Your task to perform on an android device: delete the emails in spam in the gmail app Image 0: 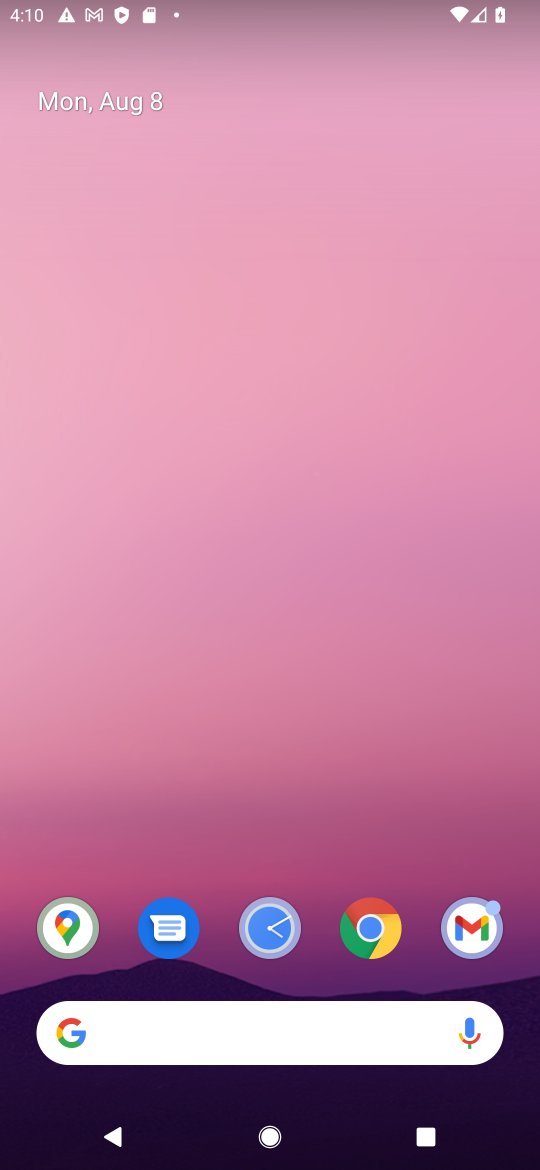
Step 0: drag from (407, 876) to (323, 130)
Your task to perform on an android device: delete the emails in spam in the gmail app Image 1: 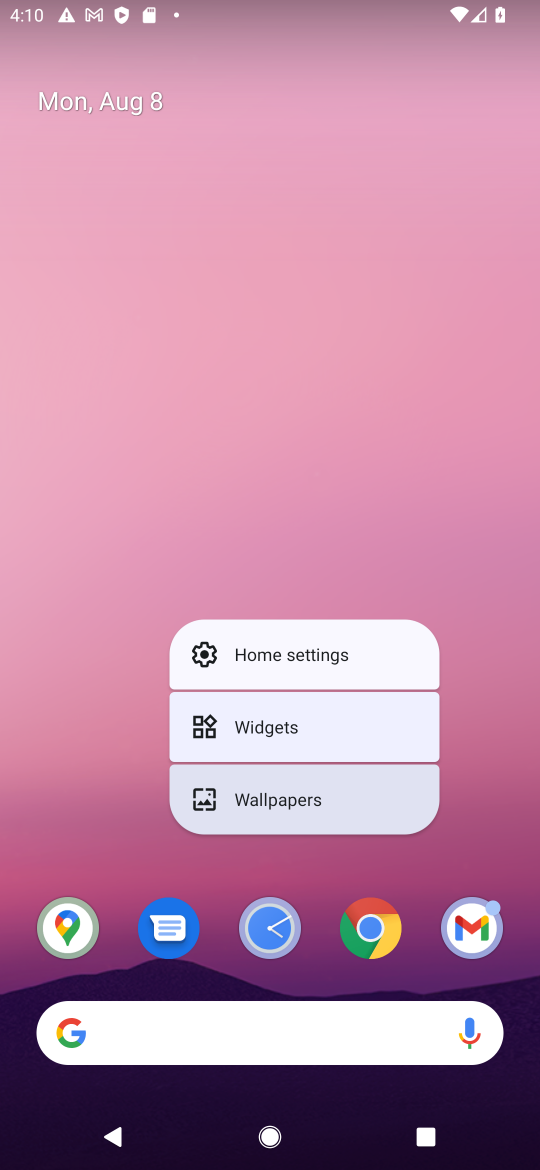
Step 1: click (468, 920)
Your task to perform on an android device: delete the emails in spam in the gmail app Image 2: 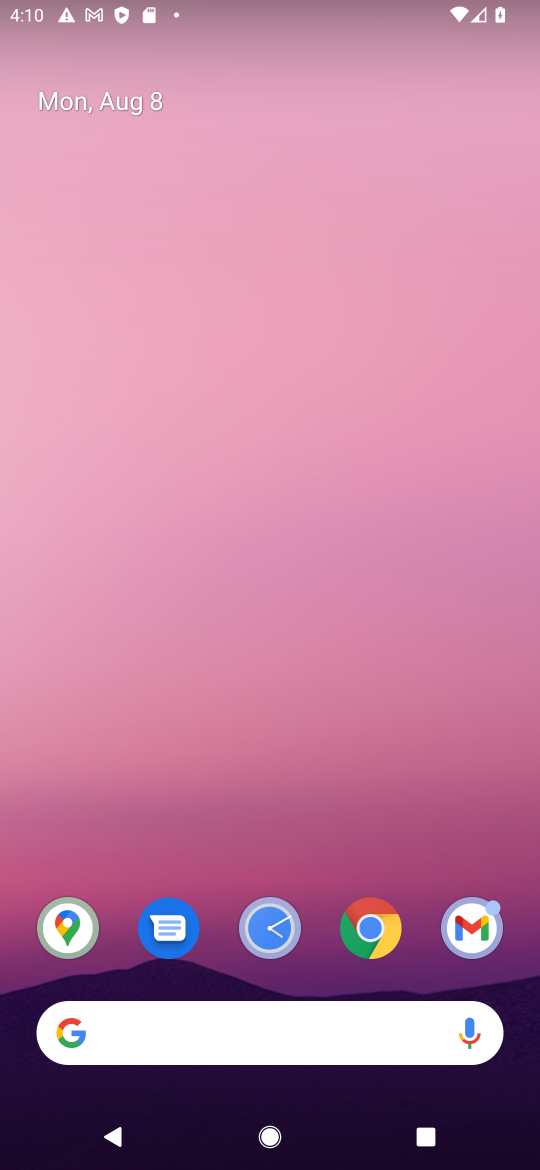
Step 2: click (479, 940)
Your task to perform on an android device: delete the emails in spam in the gmail app Image 3: 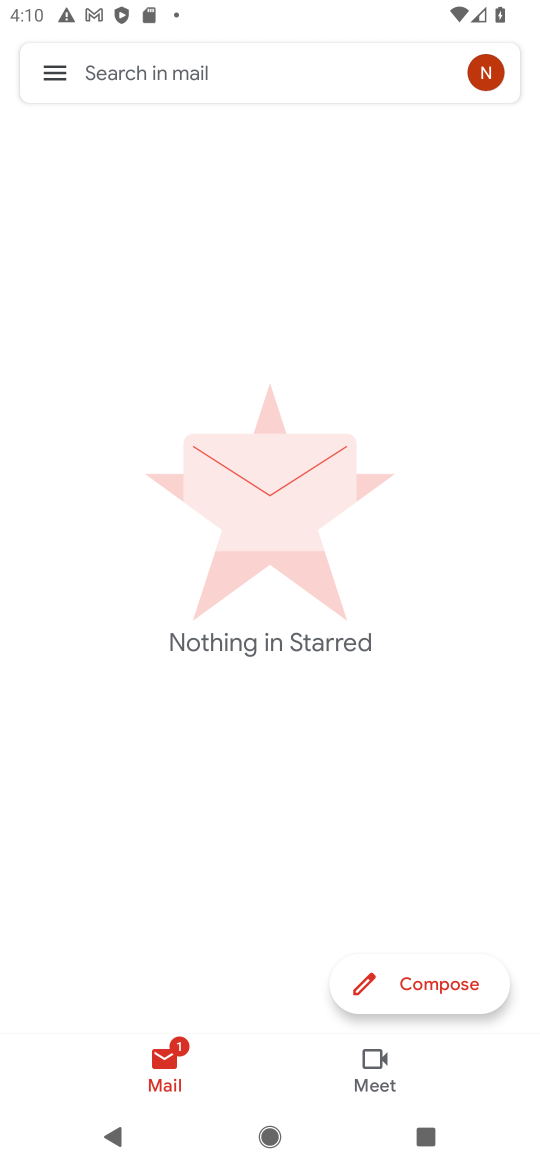
Step 3: click (62, 83)
Your task to perform on an android device: delete the emails in spam in the gmail app Image 4: 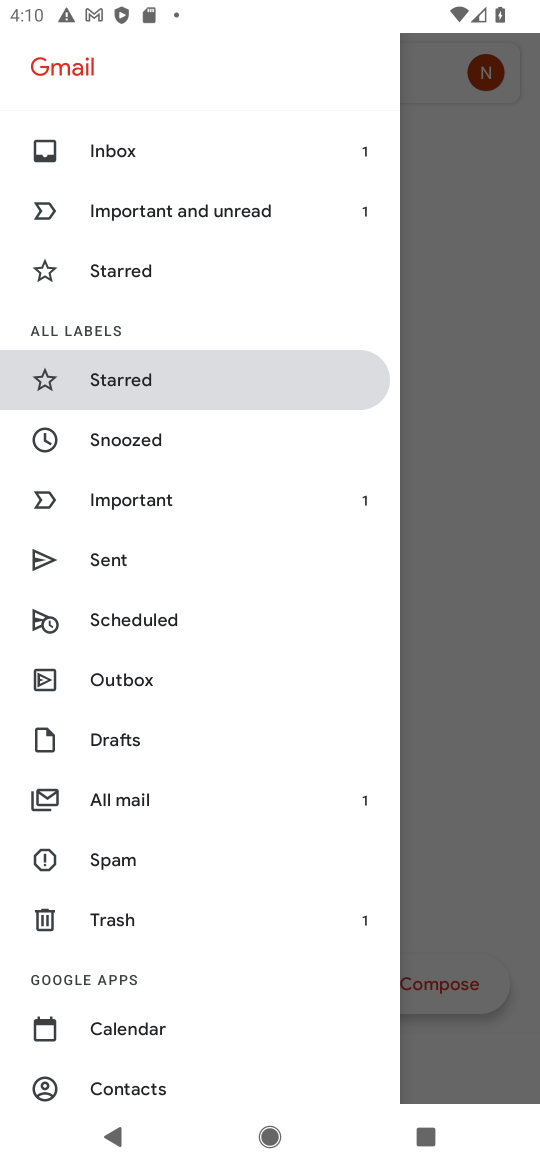
Step 4: click (145, 868)
Your task to perform on an android device: delete the emails in spam in the gmail app Image 5: 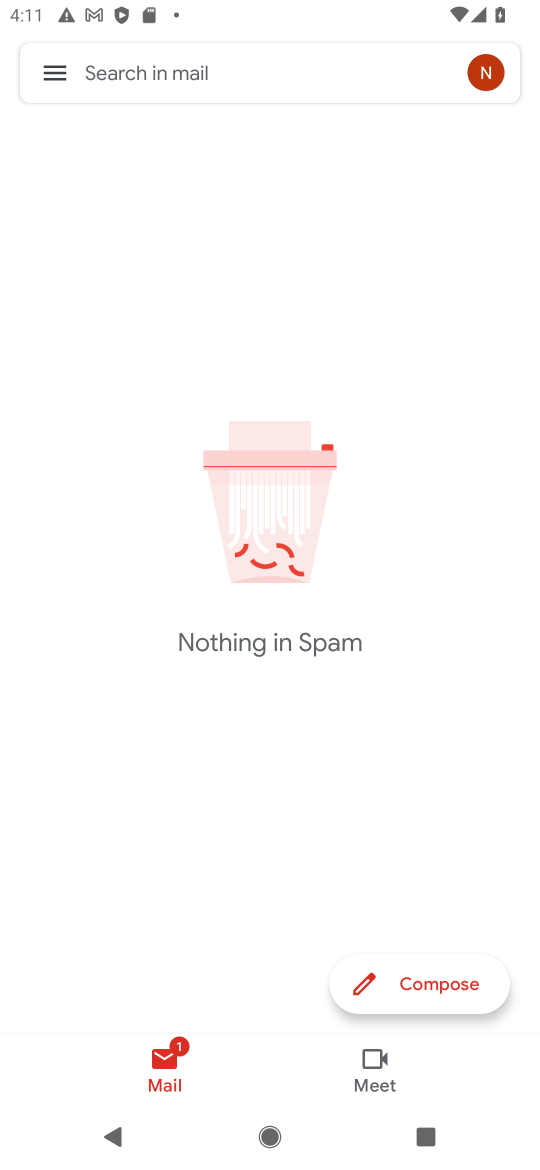
Step 5: task complete